Your task to perform on an android device: turn off picture-in-picture Image 0: 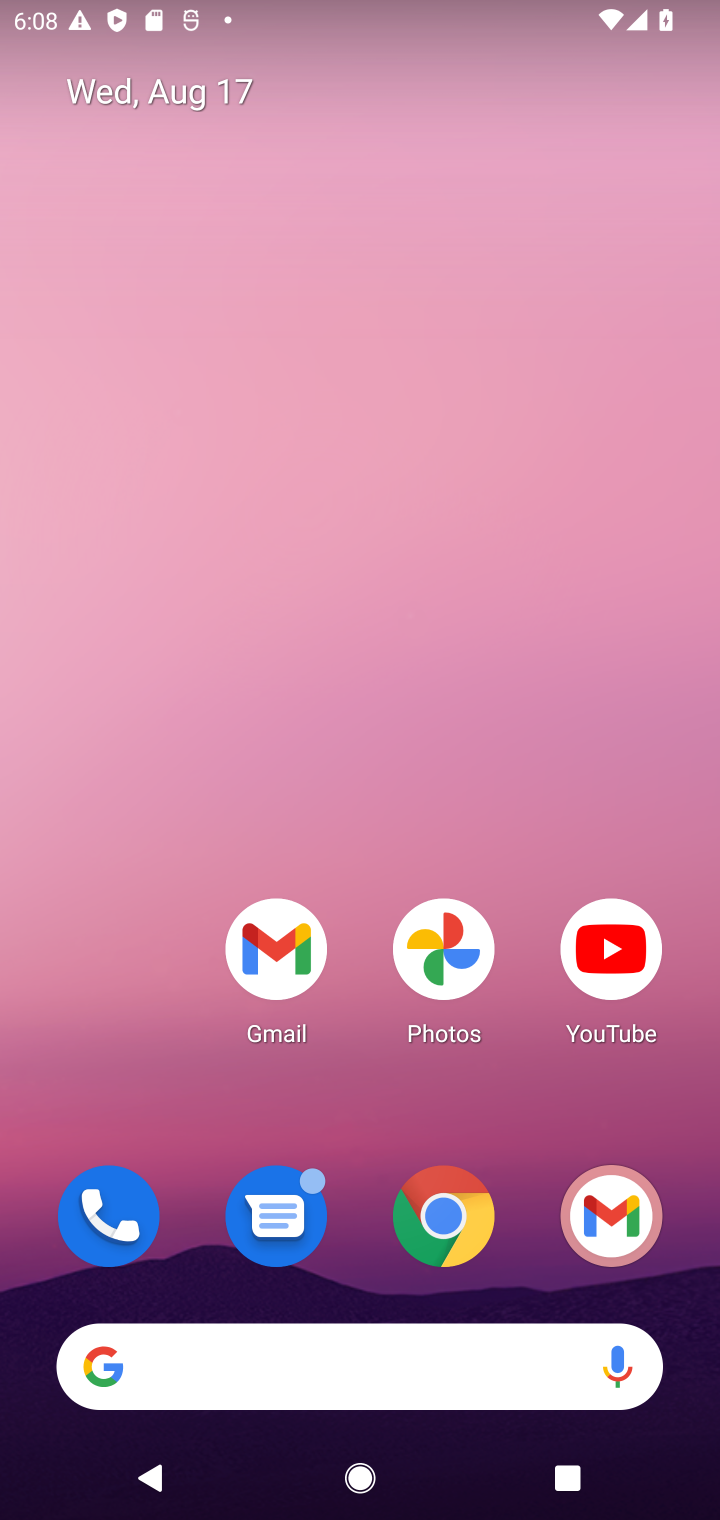
Step 0: click (433, 1230)
Your task to perform on an android device: turn off picture-in-picture Image 1: 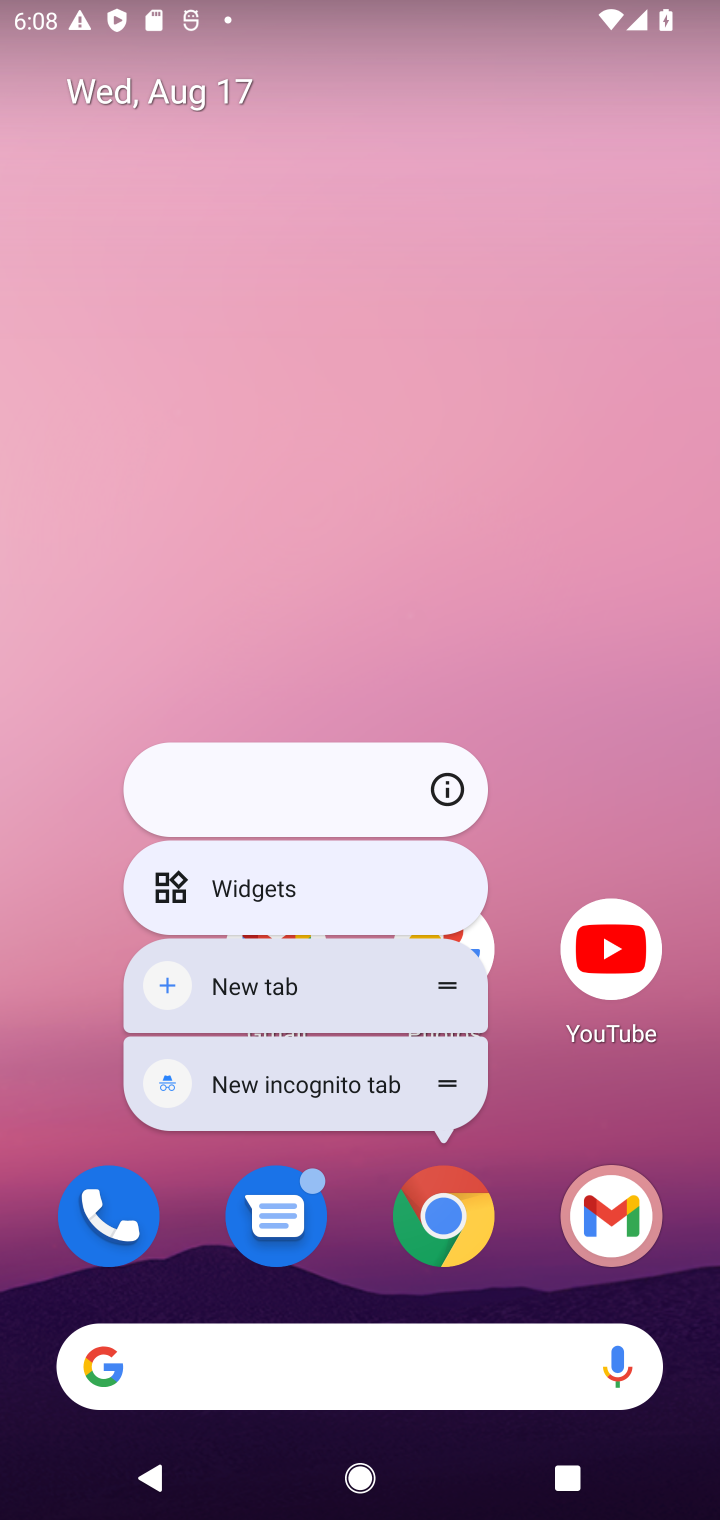
Step 1: click (460, 783)
Your task to perform on an android device: turn off picture-in-picture Image 2: 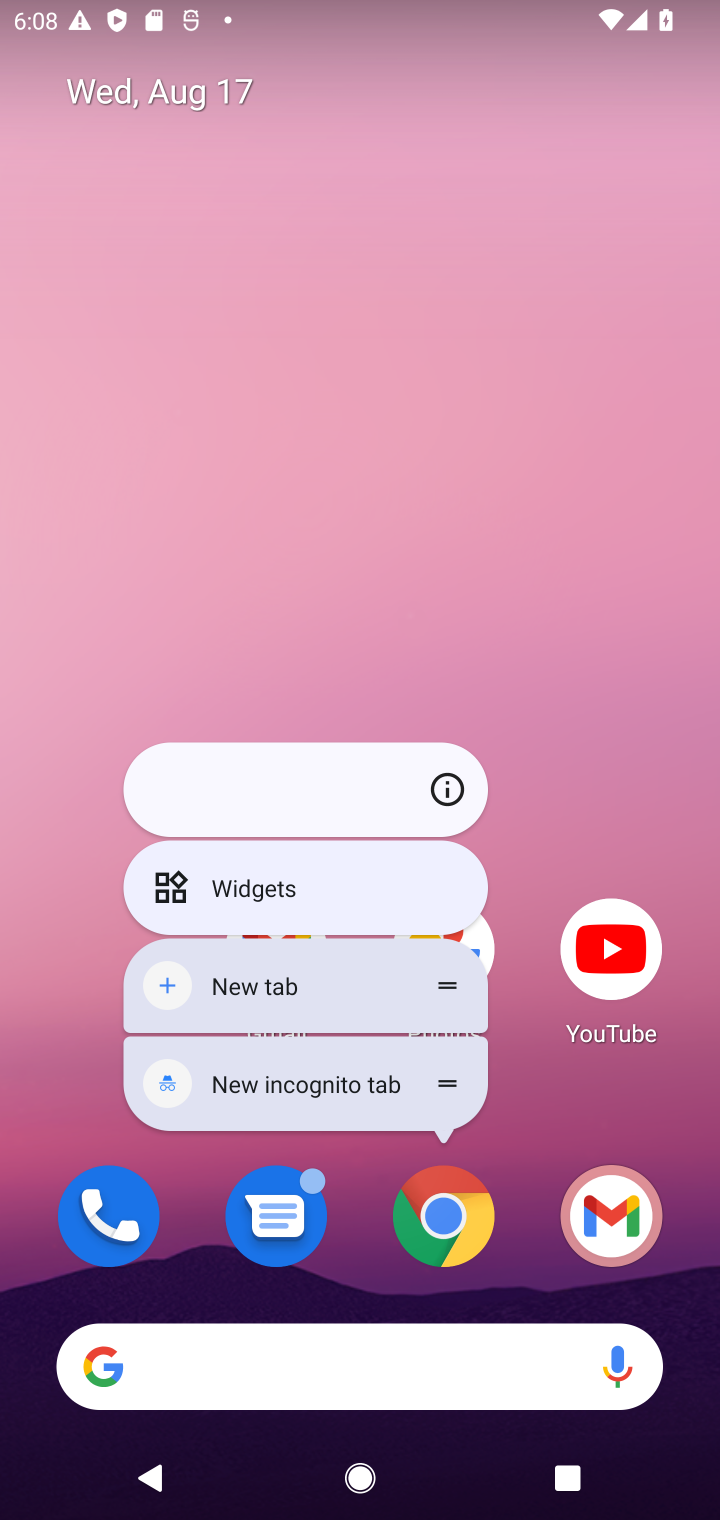
Step 2: click (454, 792)
Your task to perform on an android device: turn off picture-in-picture Image 3: 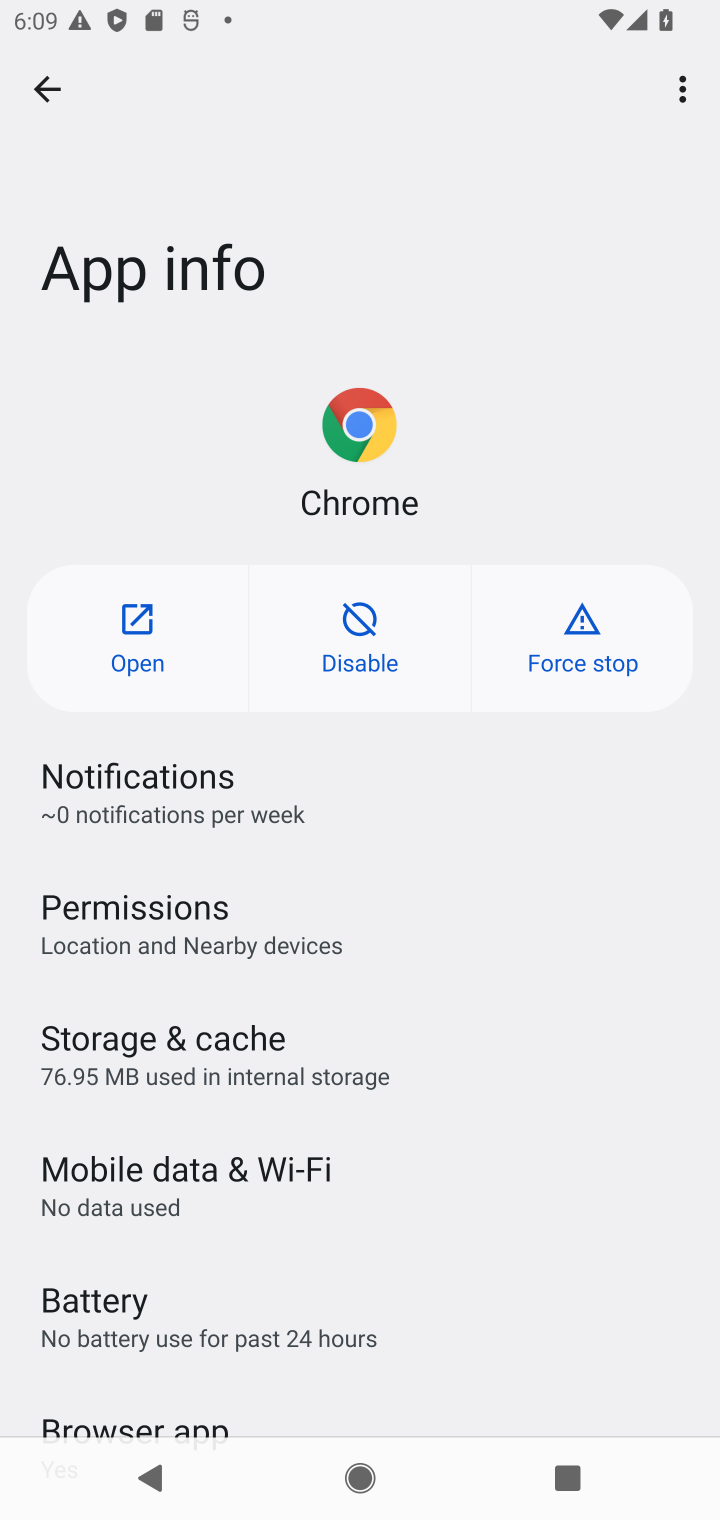
Step 3: drag from (343, 1257) to (270, 395)
Your task to perform on an android device: turn off picture-in-picture Image 4: 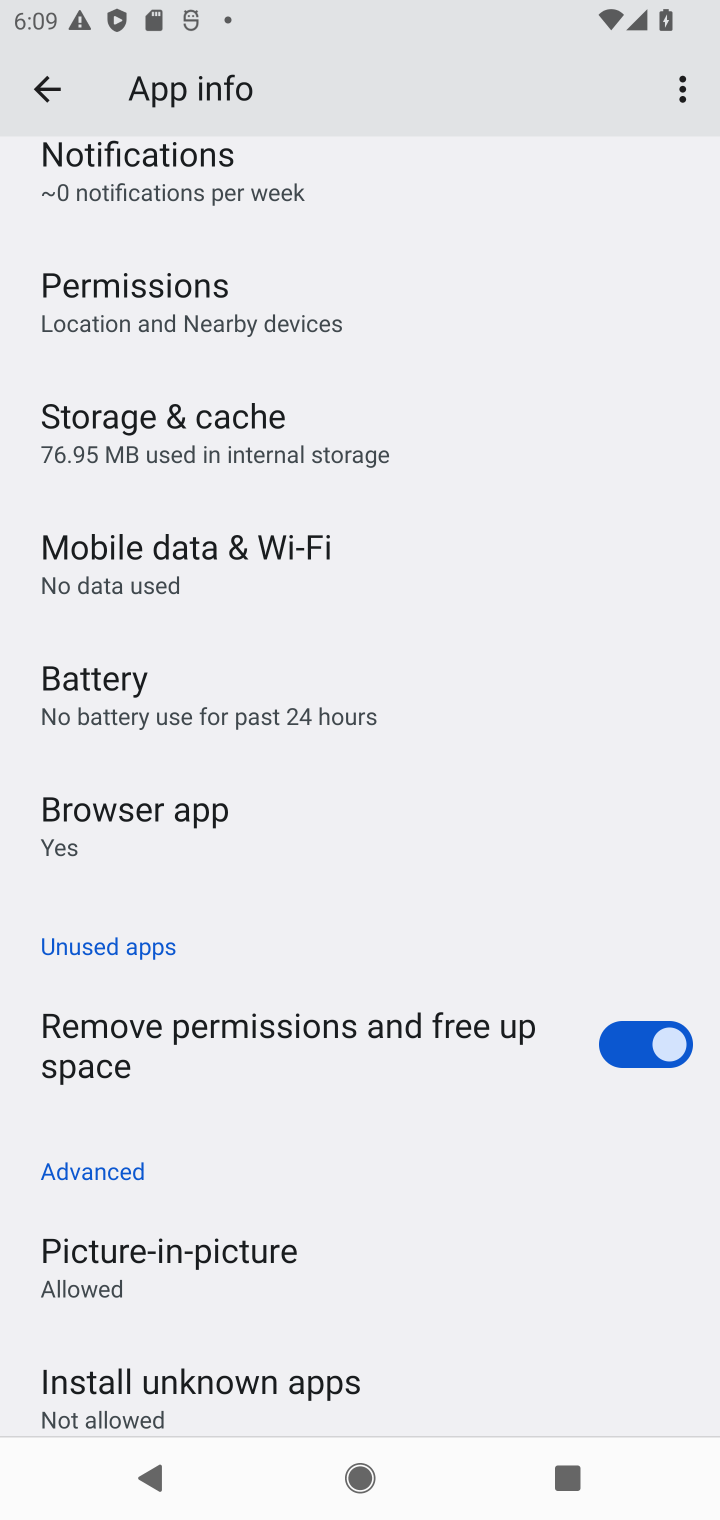
Step 4: click (214, 1263)
Your task to perform on an android device: turn off picture-in-picture Image 5: 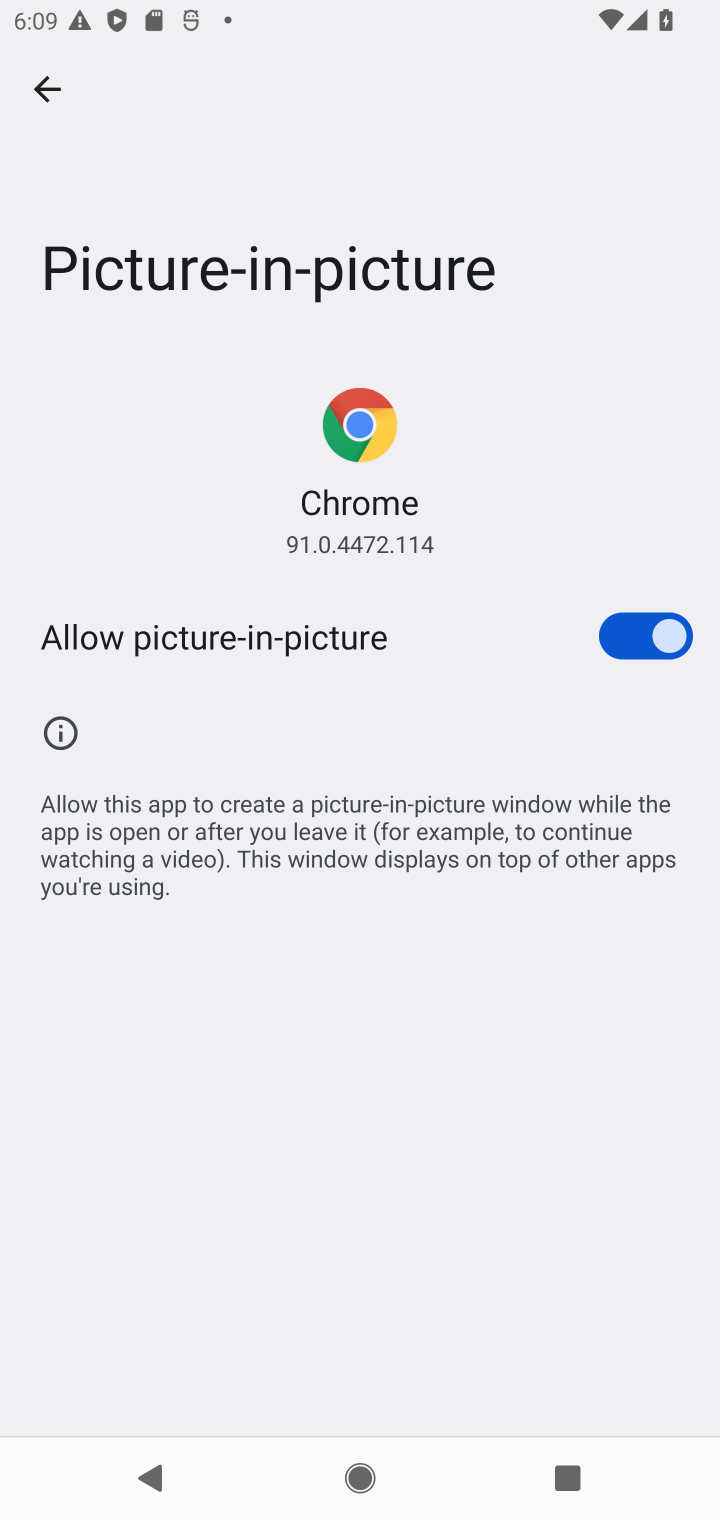
Step 5: click (617, 635)
Your task to perform on an android device: turn off picture-in-picture Image 6: 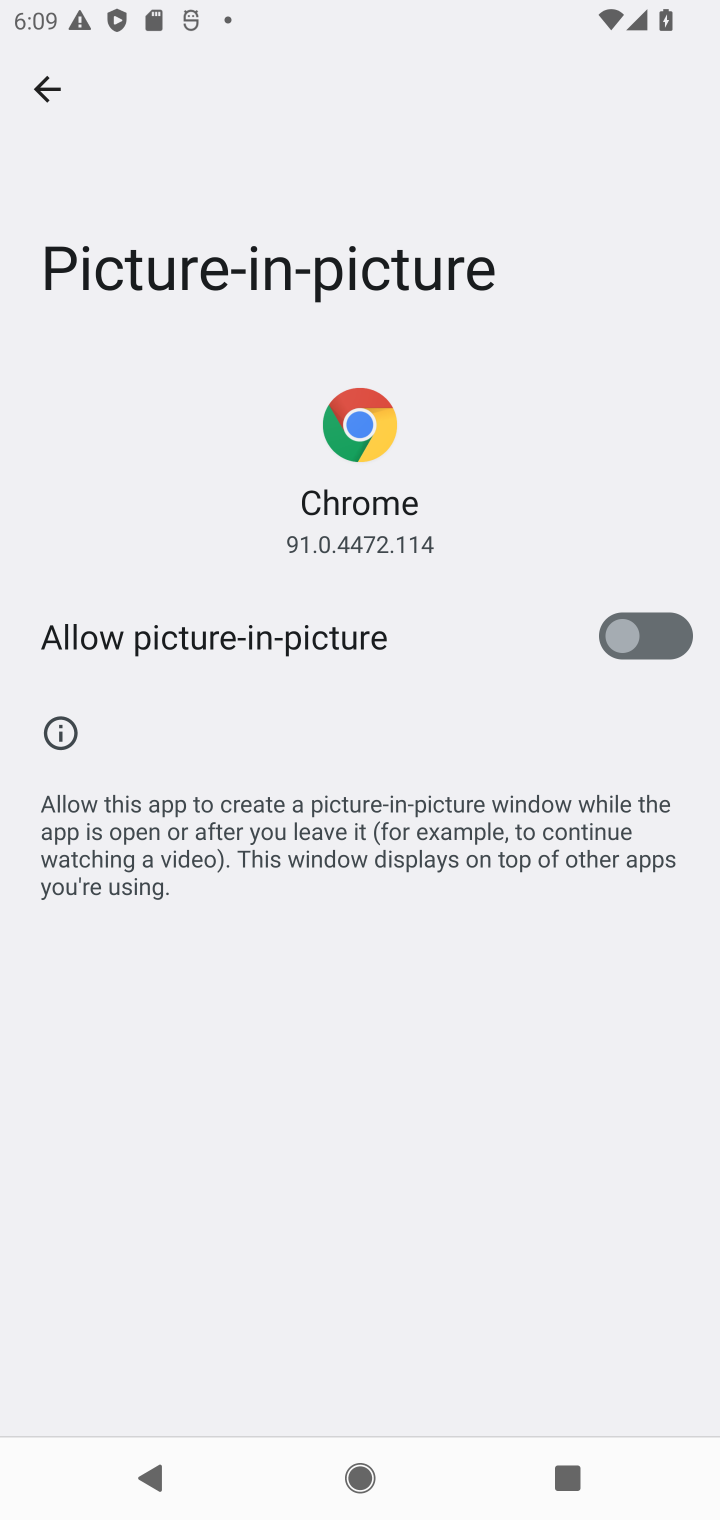
Step 6: task complete